Your task to perform on an android device: Open network settings Image 0: 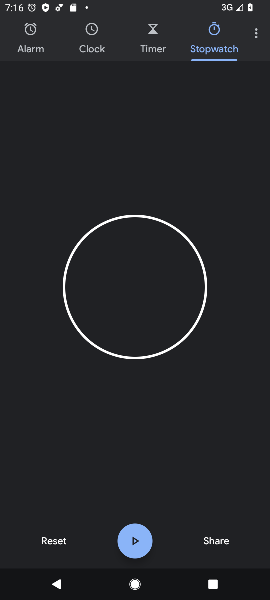
Step 0: press home button
Your task to perform on an android device: Open network settings Image 1: 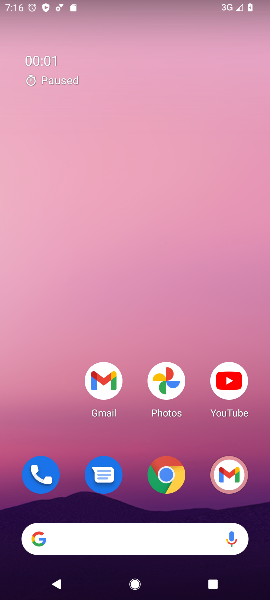
Step 1: drag from (198, 523) to (175, 29)
Your task to perform on an android device: Open network settings Image 2: 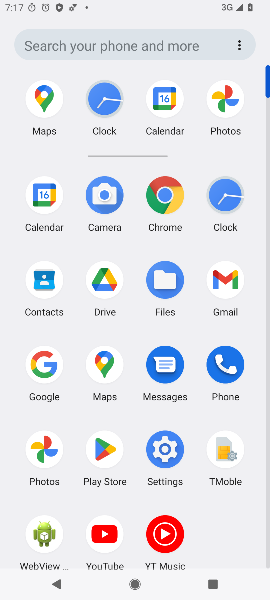
Step 2: click (163, 460)
Your task to perform on an android device: Open network settings Image 3: 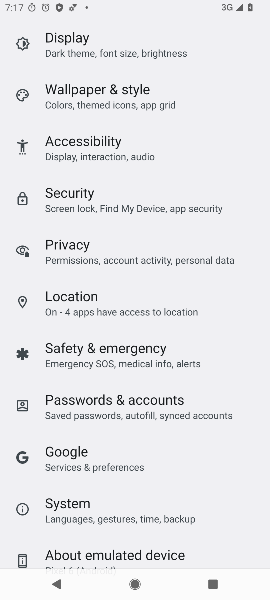
Step 3: drag from (129, 73) to (133, 467)
Your task to perform on an android device: Open network settings Image 4: 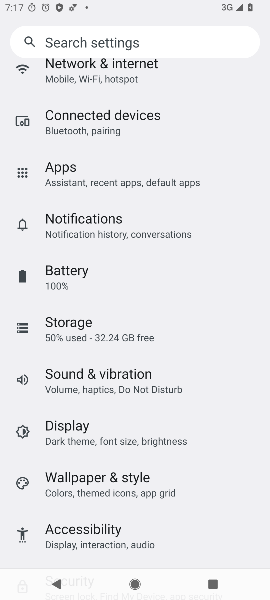
Step 4: click (99, 77)
Your task to perform on an android device: Open network settings Image 5: 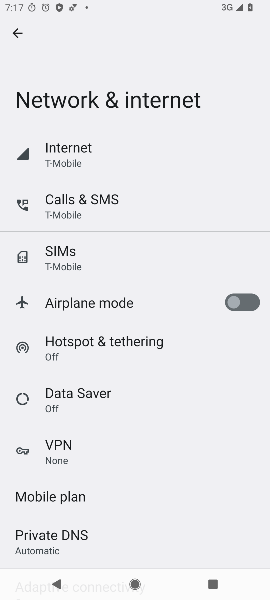
Step 5: task complete